Your task to perform on an android device: toggle show notifications on the lock screen Image 0: 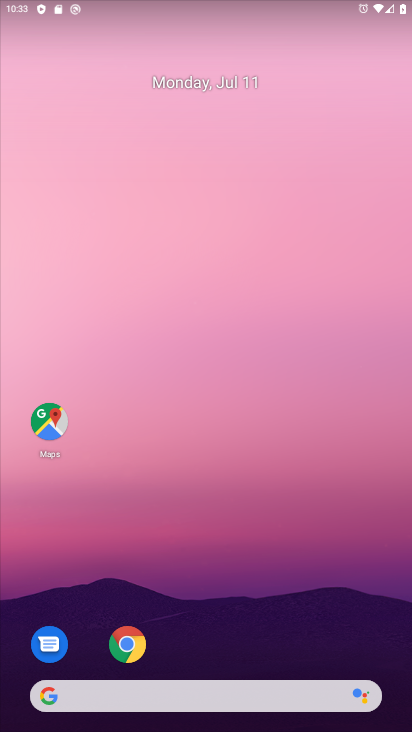
Step 0: press home button
Your task to perform on an android device: toggle show notifications on the lock screen Image 1: 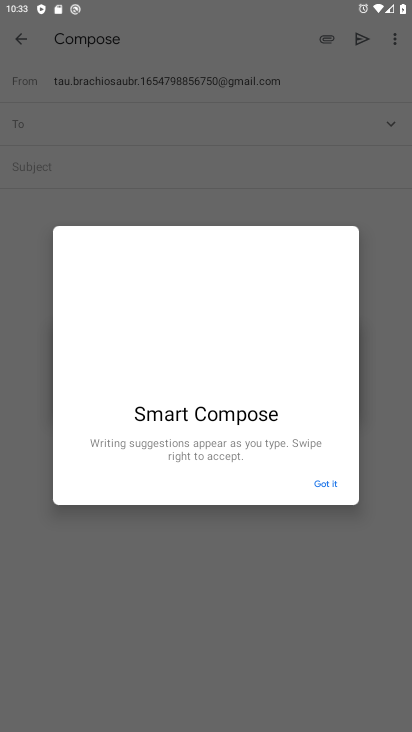
Step 1: press home button
Your task to perform on an android device: toggle show notifications on the lock screen Image 2: 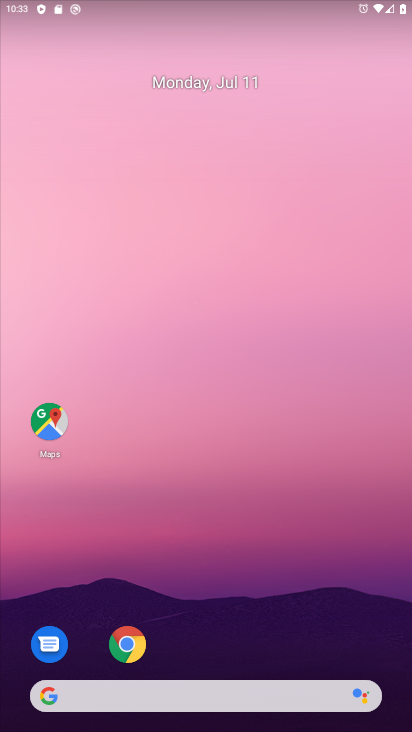
Step 2: drag from (283, 666) to (280, 57)
Your task to perform on an android device: toggle show notifications on the lock screen Image 3: 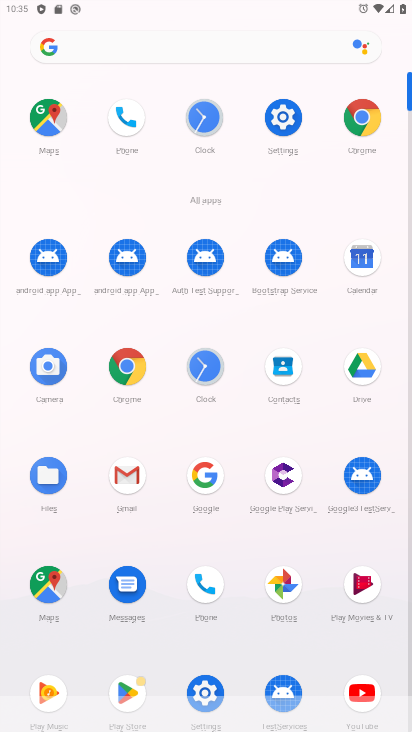
Step 3: click (208, 674)
Your task to perform on an android device: toggle show notifications on the lock screen Image 4: 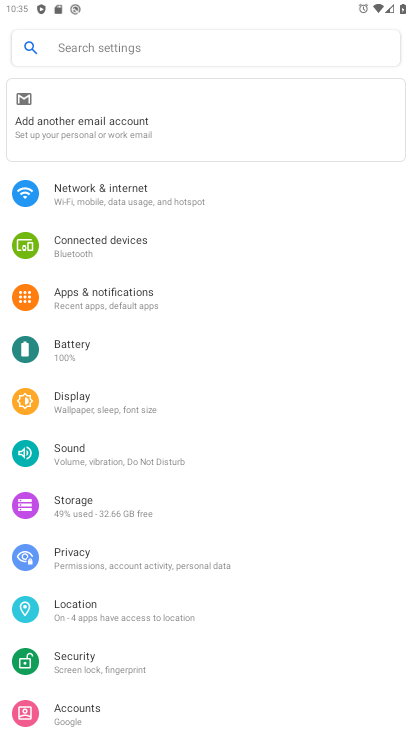
Step 4: drag from (167, 629) to (168, 244)
Your task to perform on an android device: toggle show notifications on the lock screen Image 5: 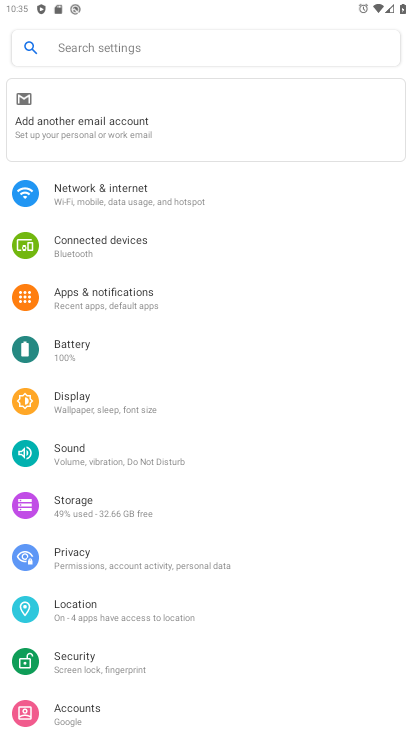
Step 5: drag from (198, 560) to (208, 679)
Your task to perform on an android device: toggle show notifications on the lock screen Image 6: 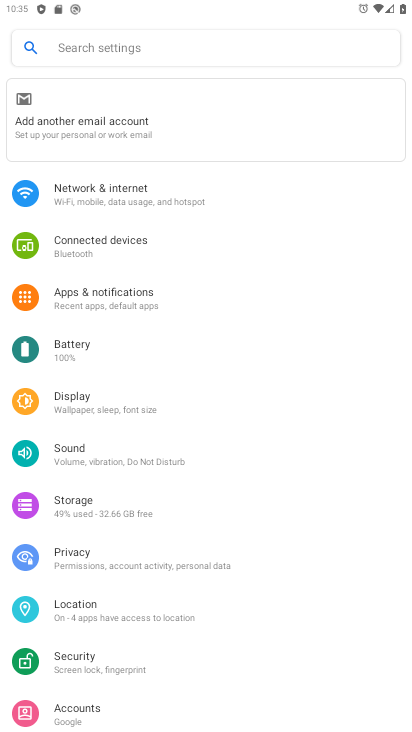
Step 6: click (93, 297)
Your task to perform on an android device: toggle show notifications on the lock screen Image 7: 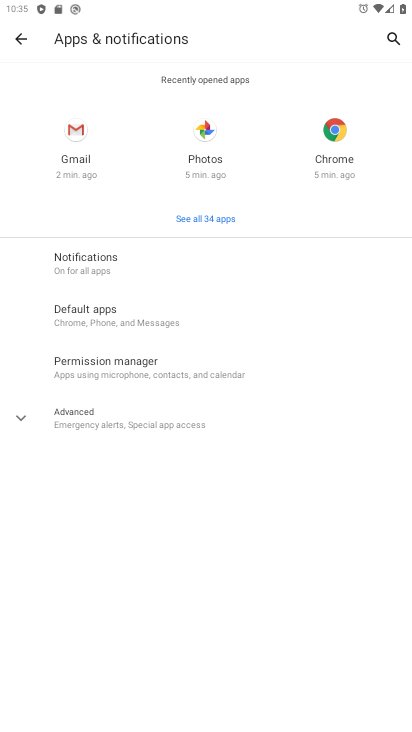
Step 7: click (73, 253)
Your task to perform on an android device: toggle show notifications on the lock screen Image 8: 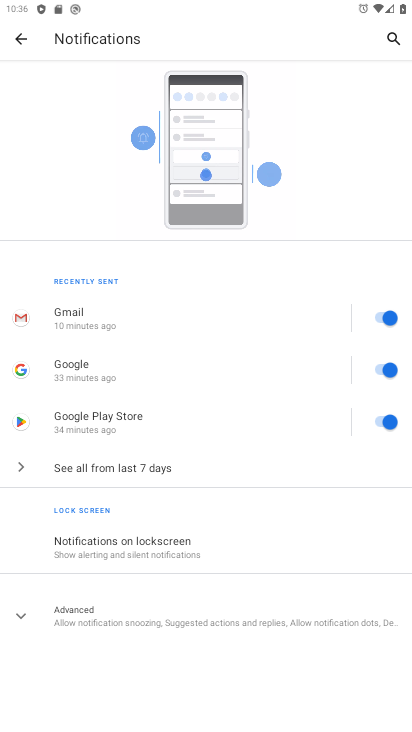
Step 8: click (96, 551)
Your task to perform on an android device: toggle show notifications on the lock screen Image 9: 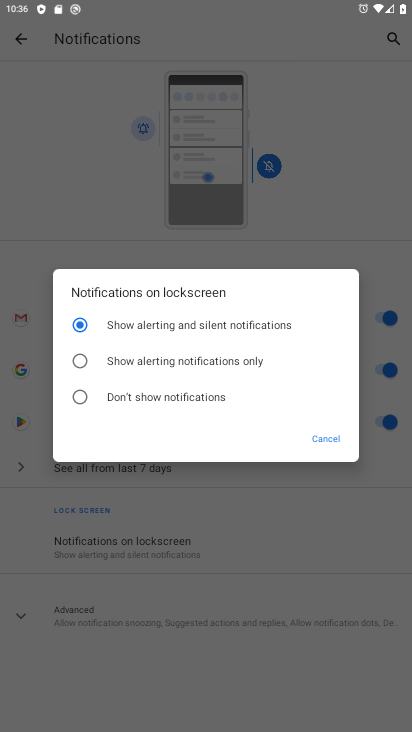
Step 9: click (76, 394)
Your task to perform on an android device: toggle show notifications on the lock screen Image 10: 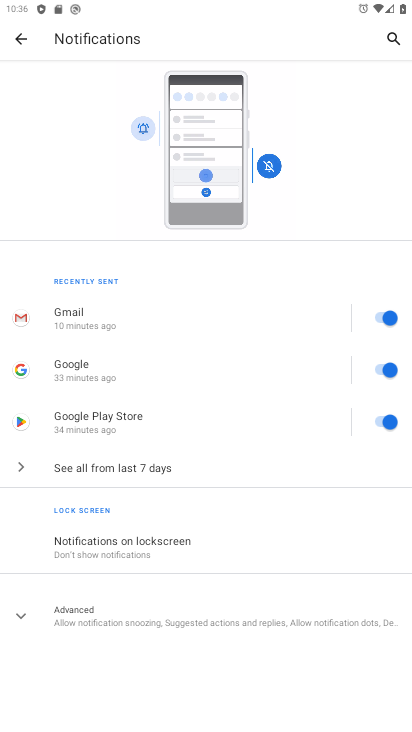
Step 10: task complete